Your task to perform on an android device: search for starred emails in the gmail app Image 0: 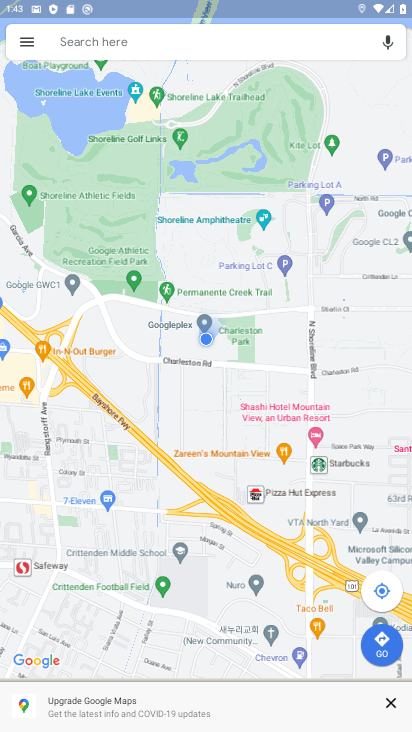
Step 0: press home button
Your task to perform on an android device: search for starred emails in the gmail app Image 1: 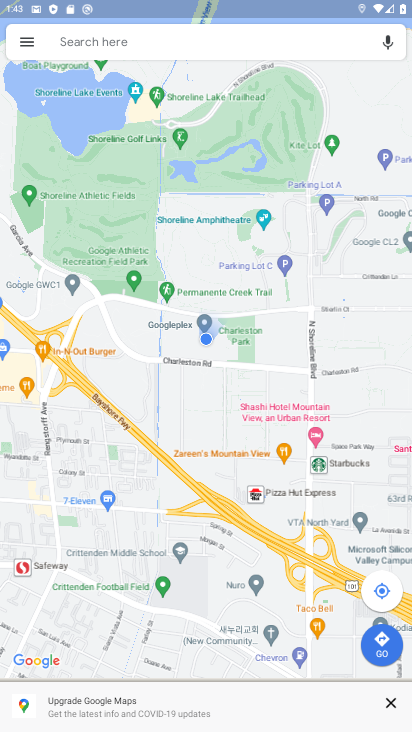
Step 1: drag from (200, 343) to (254, 81)
Your task to perform on an android device: search for starred emails in the gmail app Image 2: 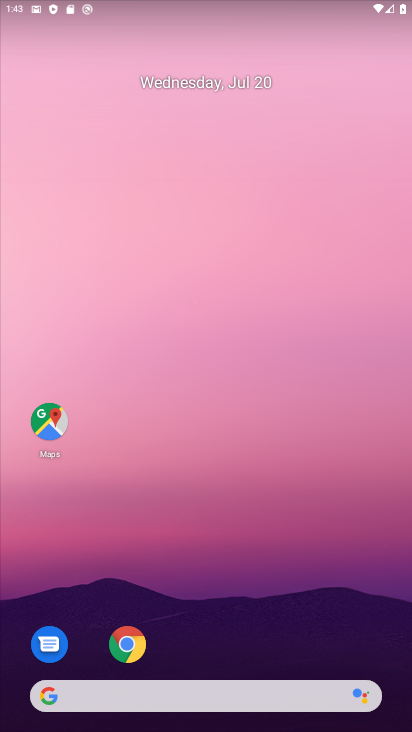
Step 2: drag from (287, 633) to (229, 23)
Your task to perform on an android device: search for starred emails in the gmail app Image 3: 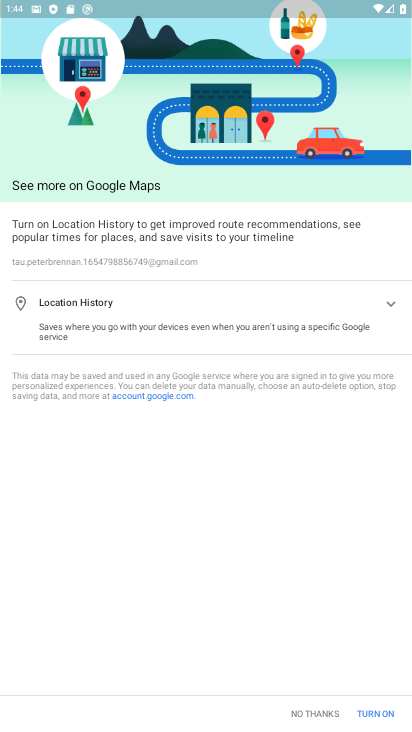
Step 3: press home button
Your task to perform on an android device: search for starred emails in the gmail app Image 4: 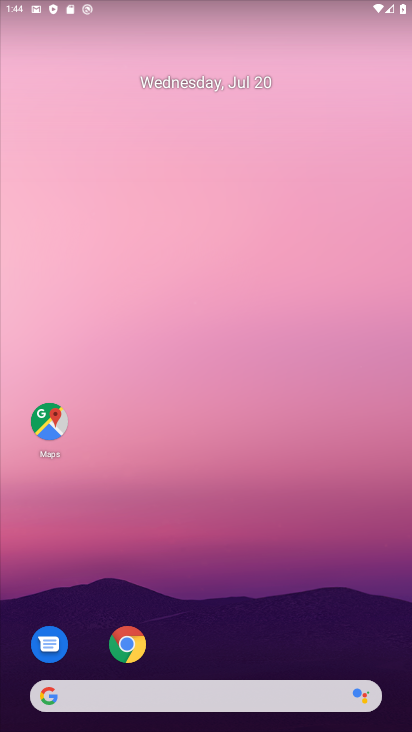
Step 4: drag from (259, 641) to (346, 33)
Your task to perform on an android device: search for starred emails in the gmail app Image 5: 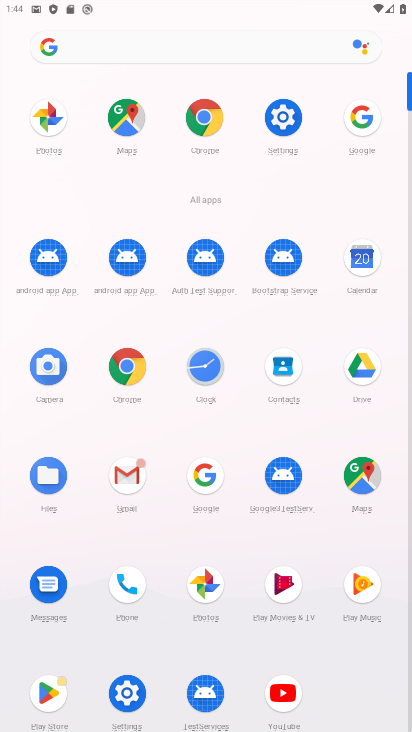
Step 5: click (147, 504)
Your task to perform on an android device: search for starred emails in the gmail app Image 6: 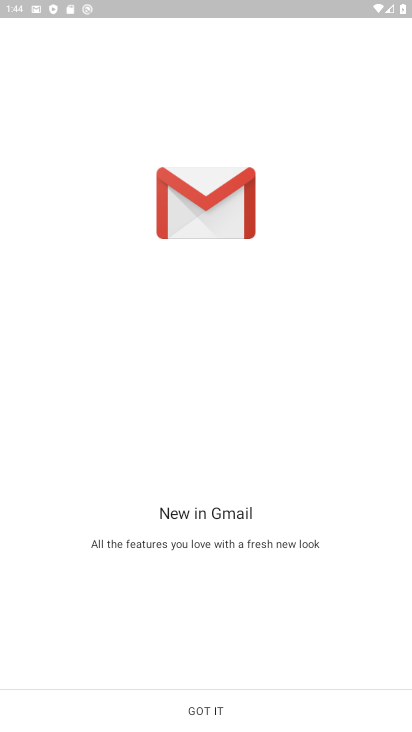
Step 6: click (201, 706)
Your task to perform on an android device: search for starred emails in the gmail app Image 7: 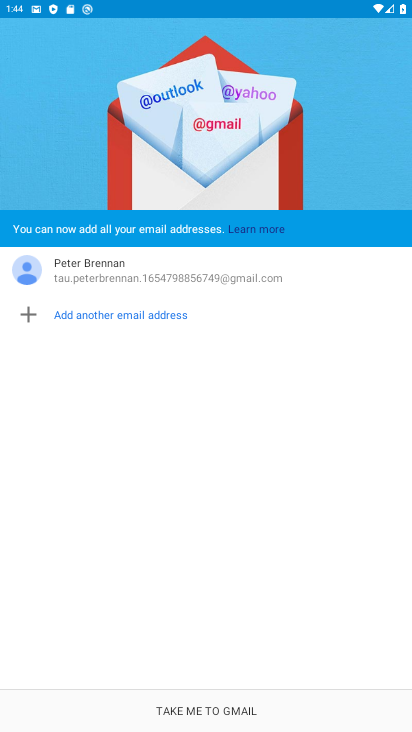
Step 7: click (201, 706)
Your task to perform on an android device: search for starred emails in the gmail app Image 8: 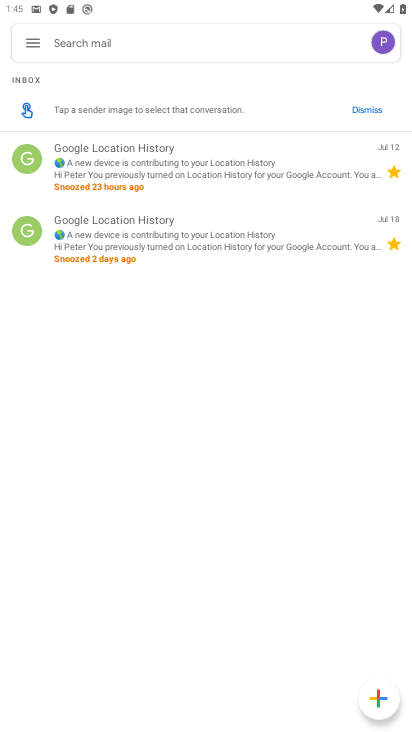
Step 8: click (31, 43)
Your task to perform on an android device: search for starred emails in the gmail app Image 9: 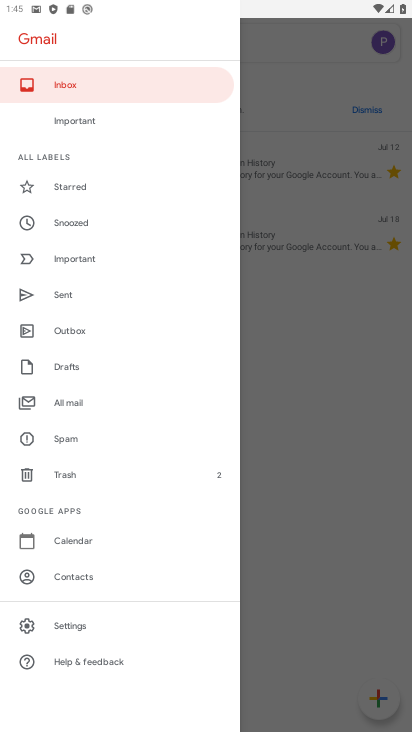
Step 9: click (69, 188)
Your task to perform on an android device: search for starred emails in the gmail app Image 10: 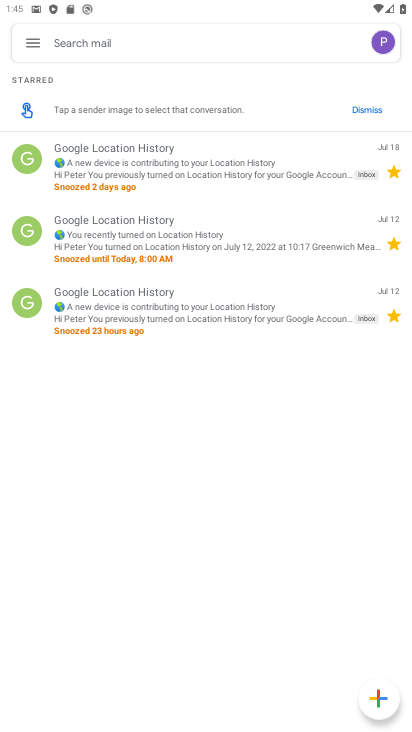
Step 10: task complete